Your task to perform on an android device: Open network settings Image 0: 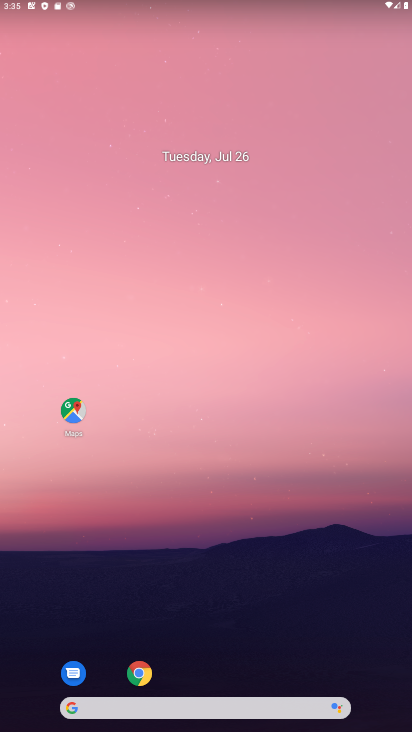
Step 0: drag from (234, 668) to (208, 99)
Your task to perform on an android device: Open network settings Image 1: 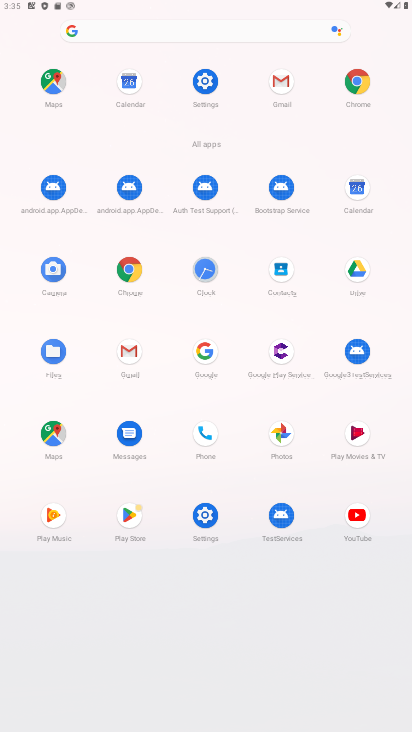
Step 1: click (208, 87)
Your task to perform on an android device: Open network settings Image 2: 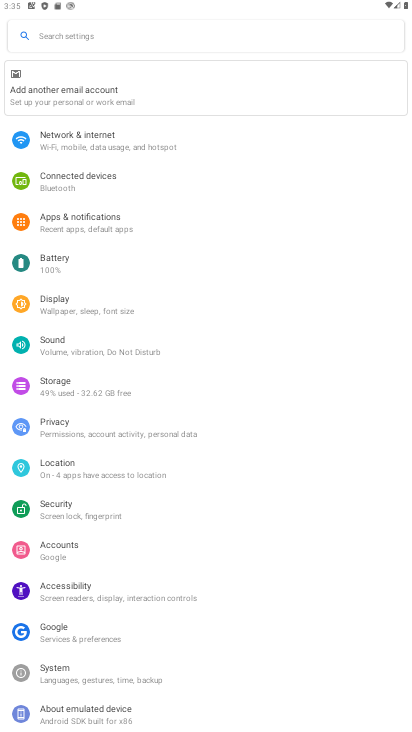
Step 2: click (58, 134)
Your task to perform on an android device: Open network settings Image 3: 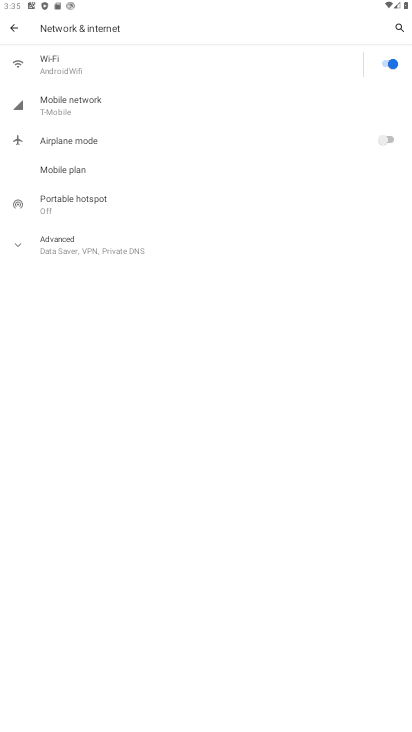
Step 3: click (49, 112)
Your task to perform on an android device: Open network settings Image 4: 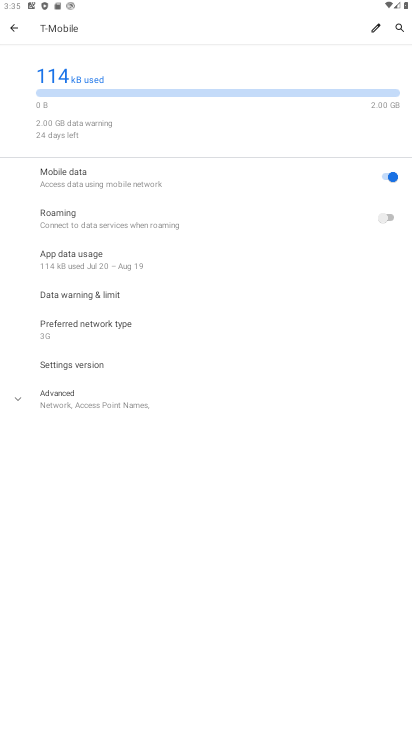
Step 4: click (25, 404)
Your task to perform on an android device: Open network settings Image 5: 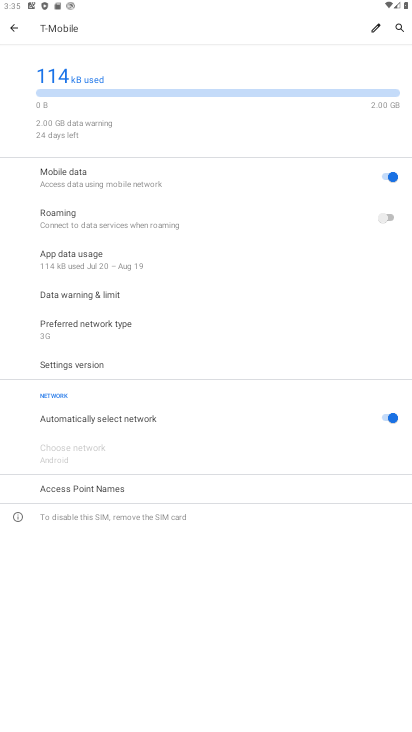
Step 5: task complete